Your task to perform on an android device: turn off notifications in google photos Image 0: 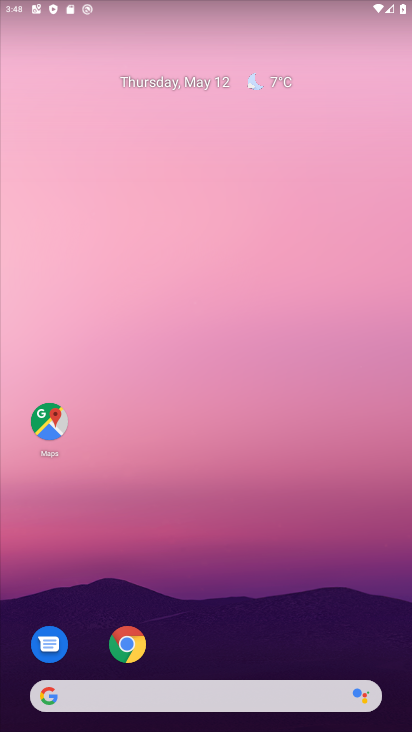
Step 0: drag from (214, 661) to (258, 78)
Your task to perform on an android device: turn off notifications in google photos Image 1: 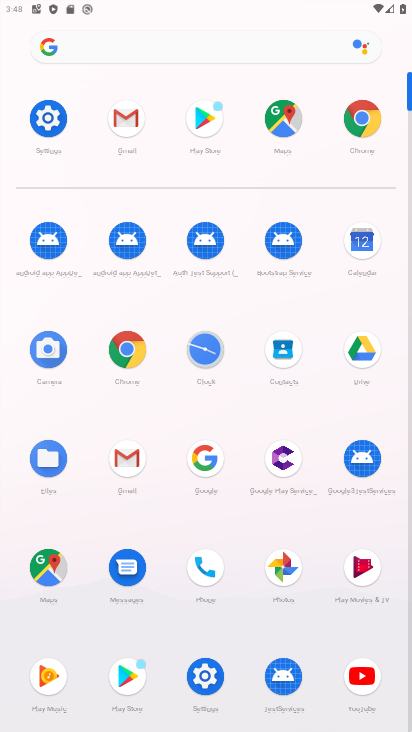
Step 1: click (281, 563)
Your task to perform on an android device: turn off notifications in google photos Image 2: 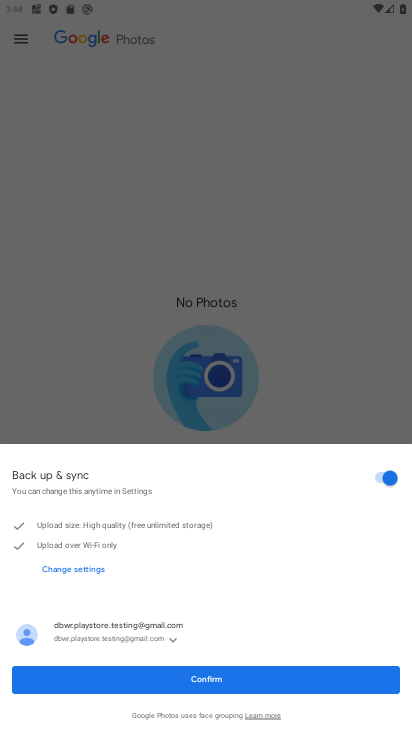
Step 2: click (210, 676)
Your task to perform on an android device: turn off notifications in google photos Image 3: 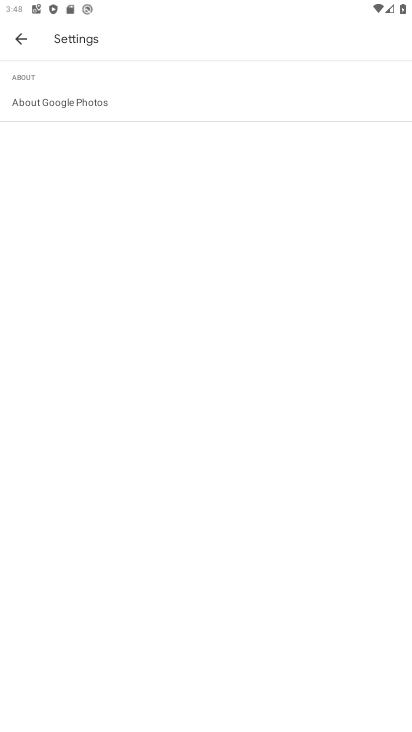
Step 3: click (19, 36)
Your task to perform on an android device: turn off notifications in google photos Image 4: 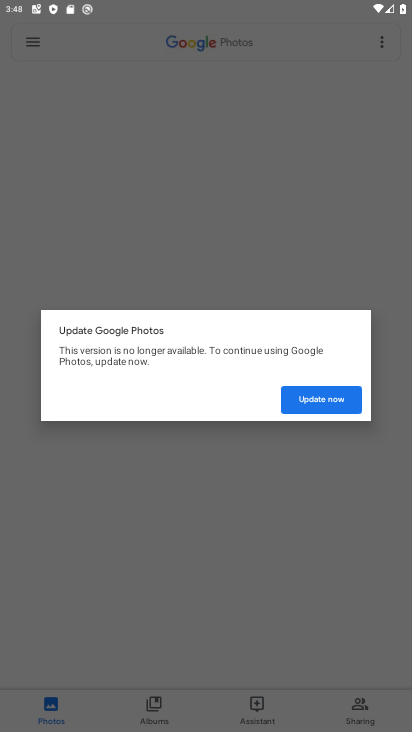
Step 4: click (323, 397)
Your task to perform on an android device: turn off notifications in google photos Image 5: 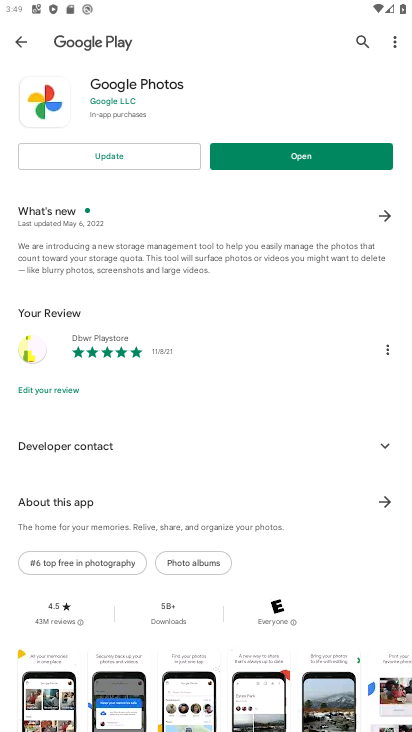
Step 5: click (112, 153)
Your task to perform on an android device: turn off notifications in google photos Image 6: 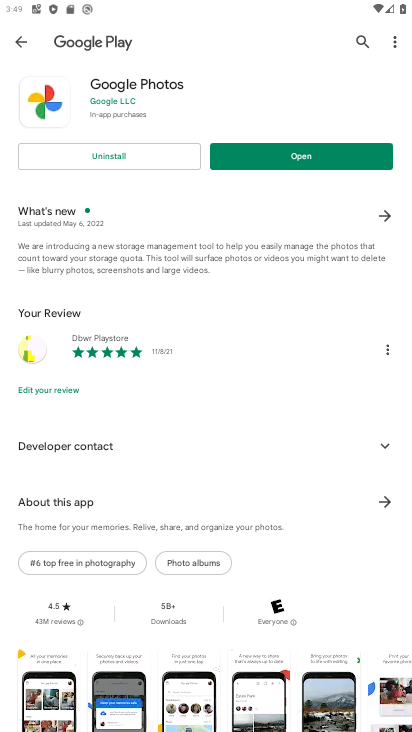
Step 6: click (297, 161)
Your task to perform on an android device: turn off notifications in google photos Image 7: 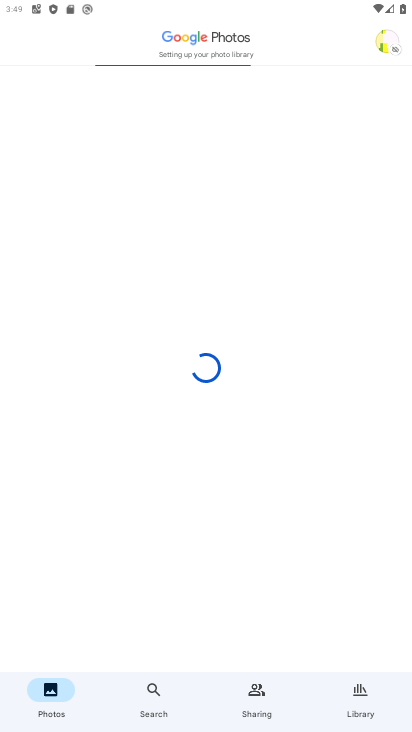
Step 7: click (387, 38)
Your task to perform on an android device: turn off notifications in google photos Image 8: 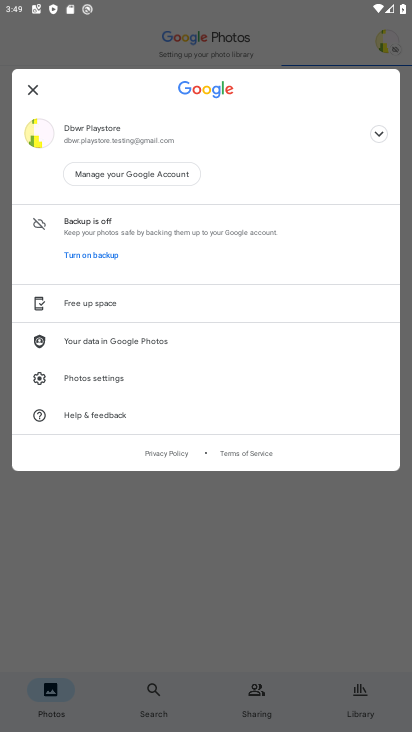
Step 8: click (104, 377)
Your task to perform on an android device: turn off notifications in google photos Image 9: 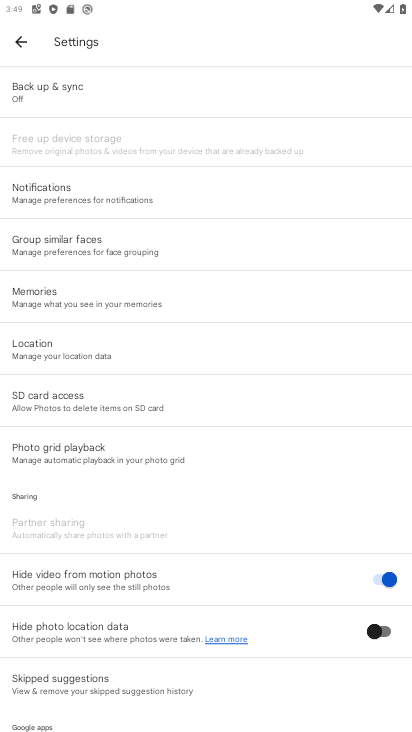
Step 9: click (91, 195)
Your task to perform on an android device: turn off notifications in google photos Image 10: 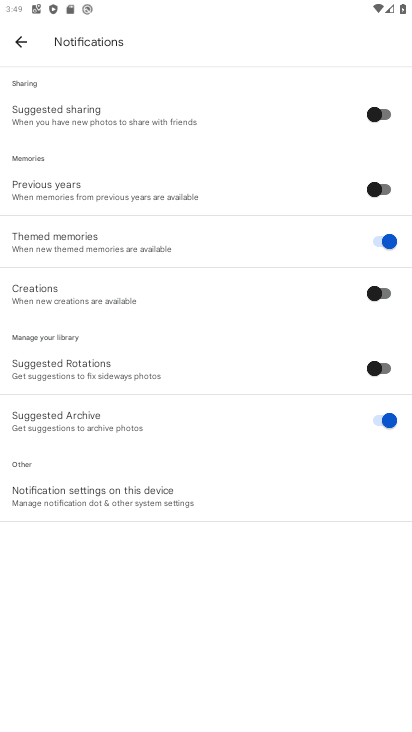
Step 10: click (17, 51)
Your task to perform on an android device: turn off notifications in google photos Image 11: 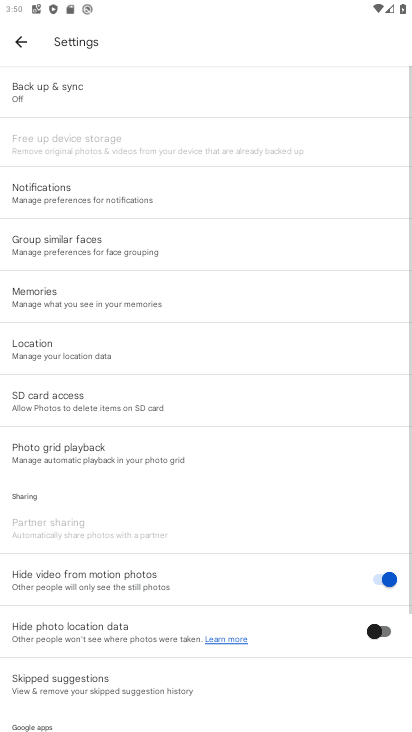
Step 11: click (72, 200)
Your task to perform on an android device: turn off notifications in google photos Image 12: 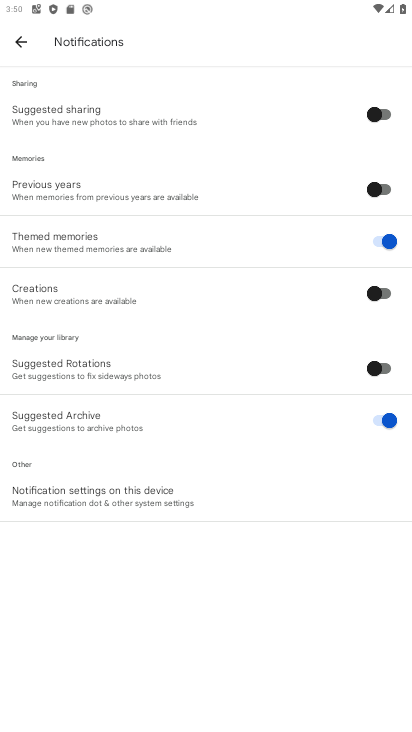
Step 12: click (123, 499)
Your task to perform on an android device: turn off notifications in google photos Image 13: 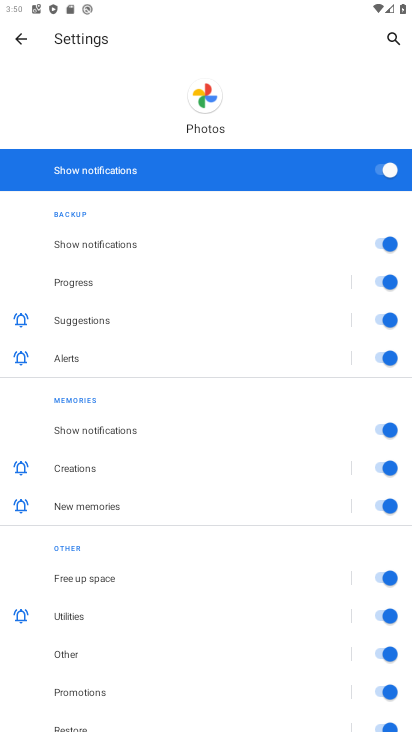
Step 13: click (380, 167)
Your task to perform on an android device: turn off notifications in google photos Image 14: 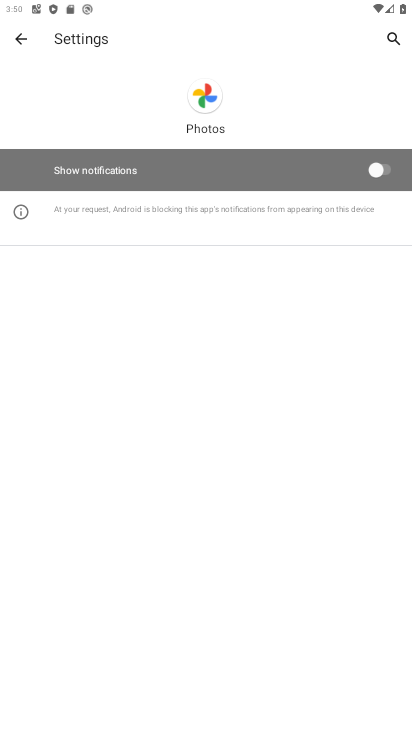
Step 14: task complete